Your task to perform on an android device: turn on the 12-hour format for clock Image 0: 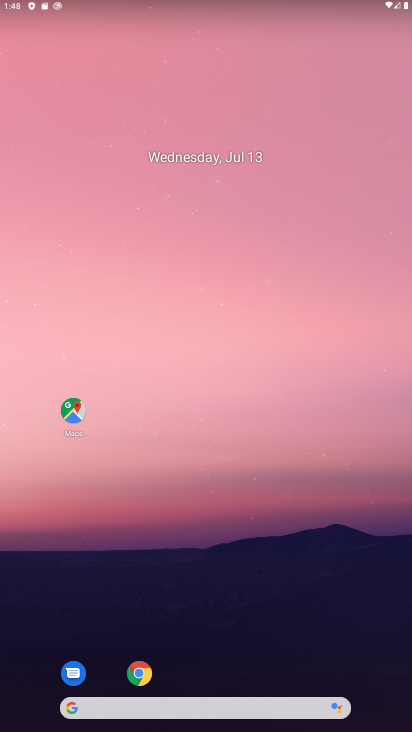
Step 0: drag from (245, 621) to (237, 48)
Your task to perform on an android device: turn on the 12-hour format for clock Image 1: 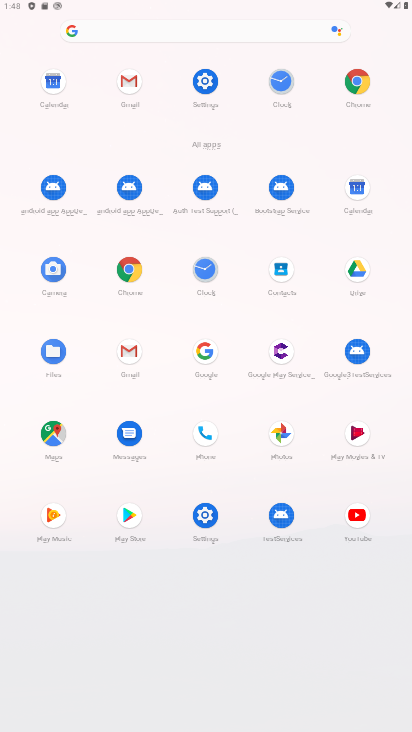
Step 1: click (206, 263)
Your task to perform on an android device: turn on the 12-hour format for clock Image 2: 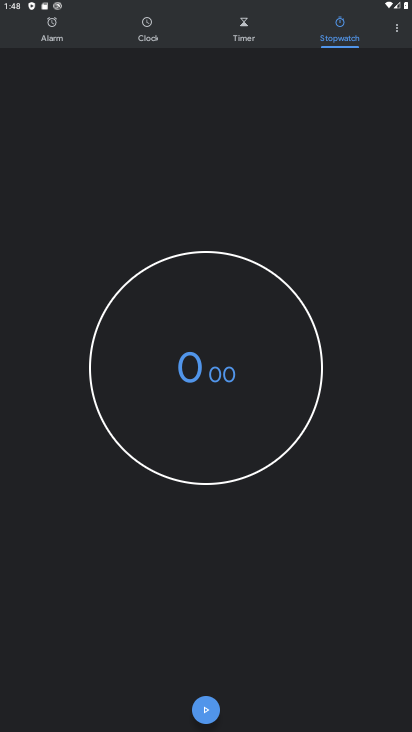
Step 2: click (397, 32)
Your task to perform on an android device: turn on the 12-hour format for clock Image 3: 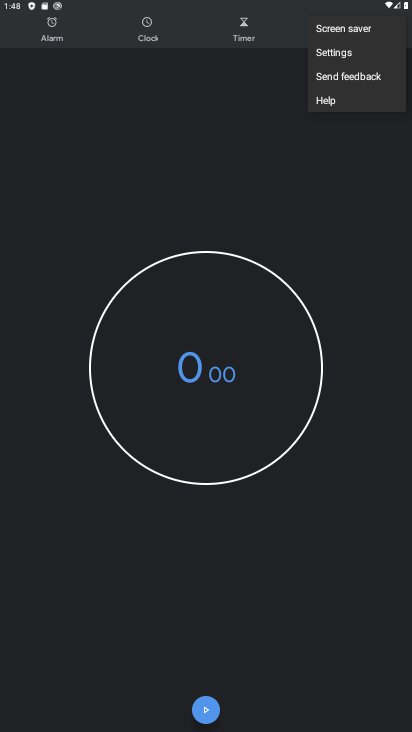
Step 3: click (328, 56)
Your task to perform on an android device: turn on the 12-hour format for clock Image 4: 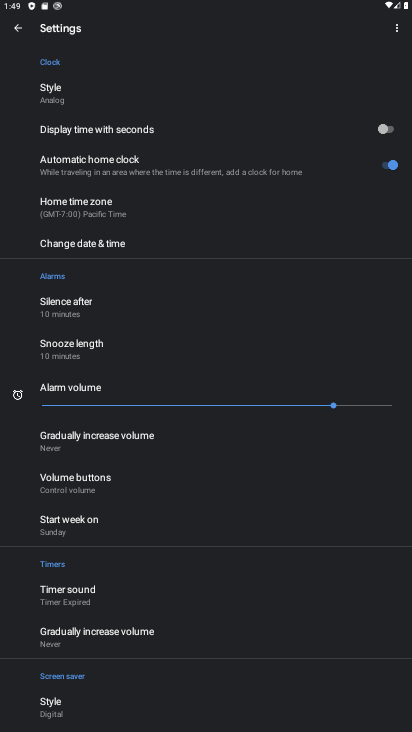
Step 4: click (84, 247)
Your task to perform on an android device: turn on the 12-hour format for clock Image 5: 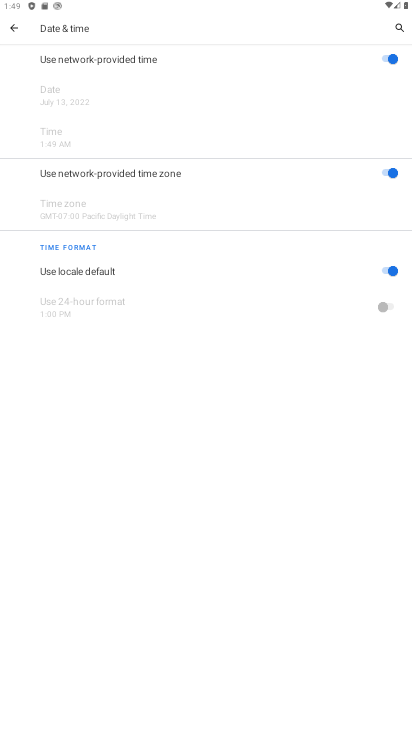
Step 5: task complete